Your task to perform on an android device: toggle pop-ups in chrome Image 0: 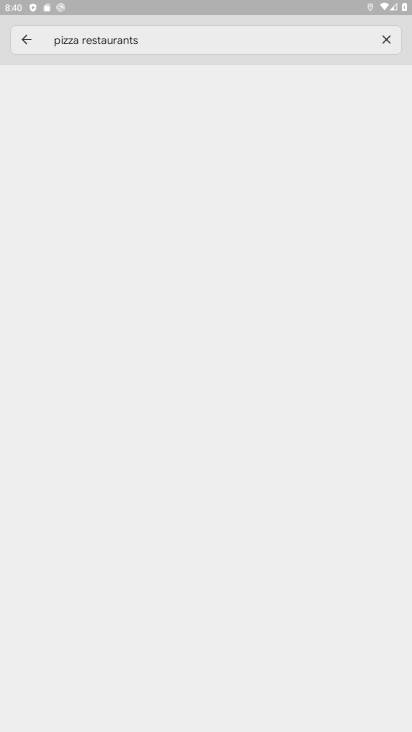
Step 0: press home button
Your task to perform on an android device: toggle pop-ups in chrome Image 1: 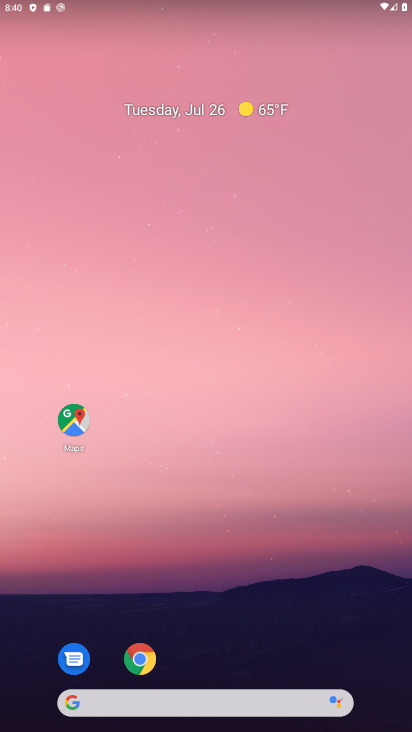
Step 1: click (138, 659)
Your task to perform on an android device: toggle pop-ups in chrome Image 2: 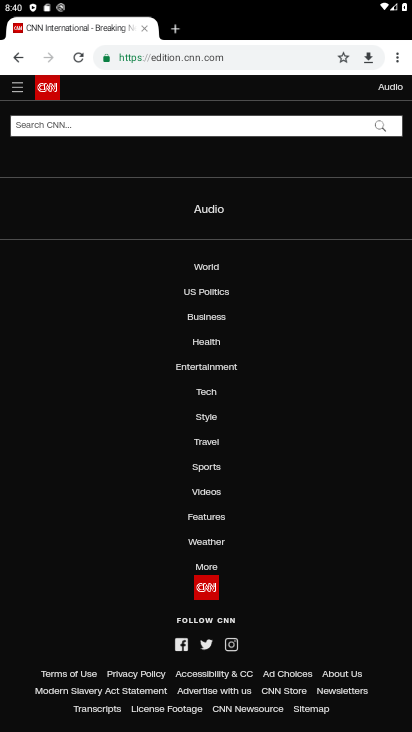
Step 2: click (396, 57)
Your task to perform on an android device: toggle pop-ups in chrome Image 3: 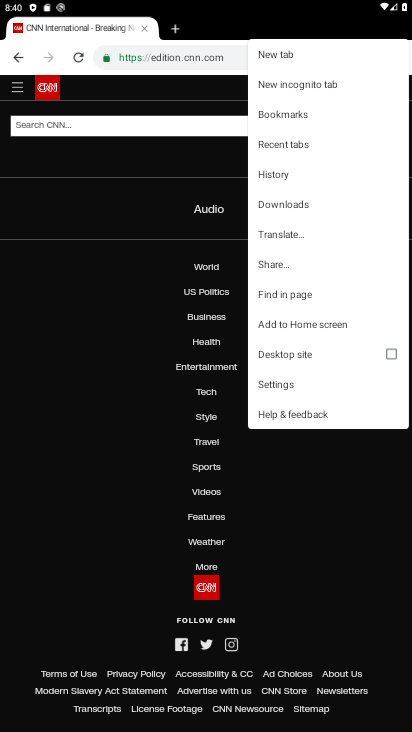
Step 3: click (293, 382)
Your task to perform on an android device: toggle pop-ups in chrome Image 4: 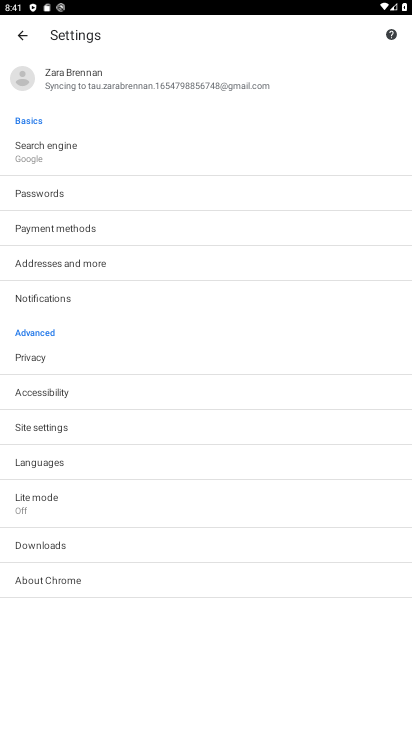
Step 4: click (32, 429)
Your task to perform on an android device: toggle pop-ups in chrome Image 5: 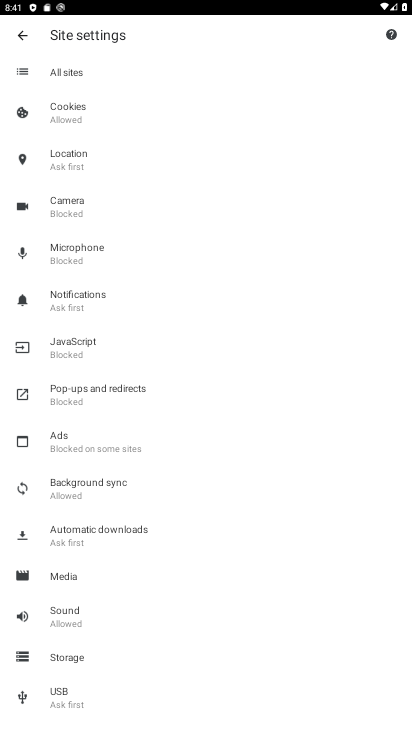
Step 5: click (66, 399)
Your task to perform on an android device: toggle pop-ups in chrome Image 6: 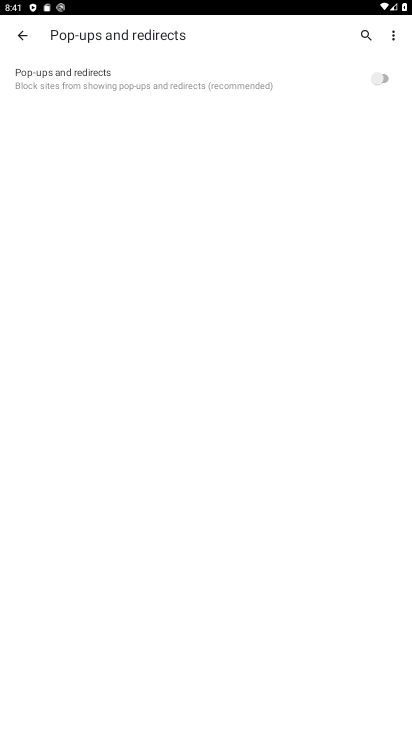
Step 6: click (384, 77)
Your task to perform on an android device: toggle pop-ups in chrome Image 7: 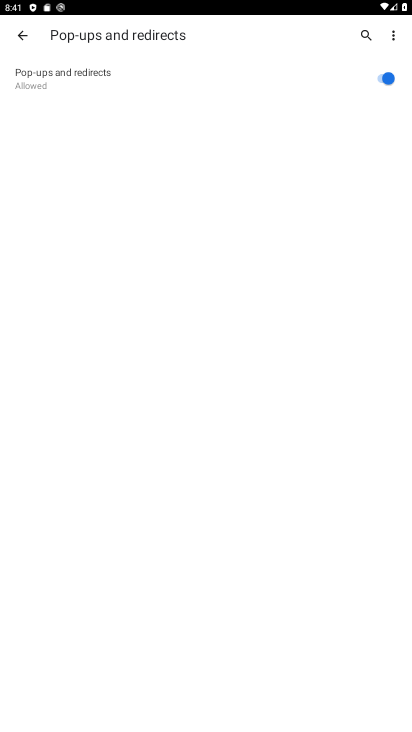
Step 7: task complete